Your task to perform on an android device: change notification settings in the gmail app Image 0: 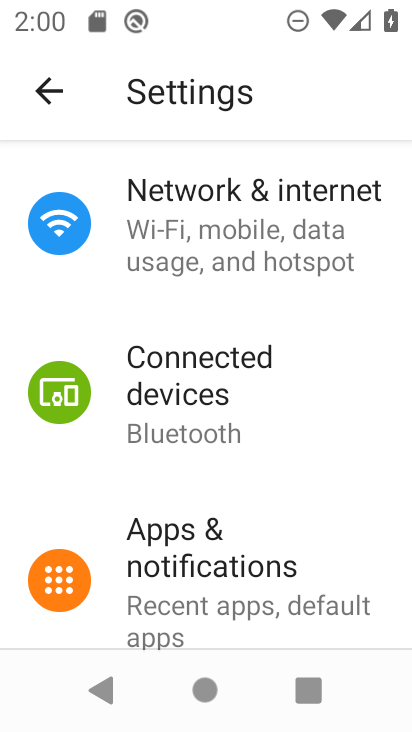
Step 0: press home button
Your task to perform on an android device: change notification settings in the gmail app Image 1: 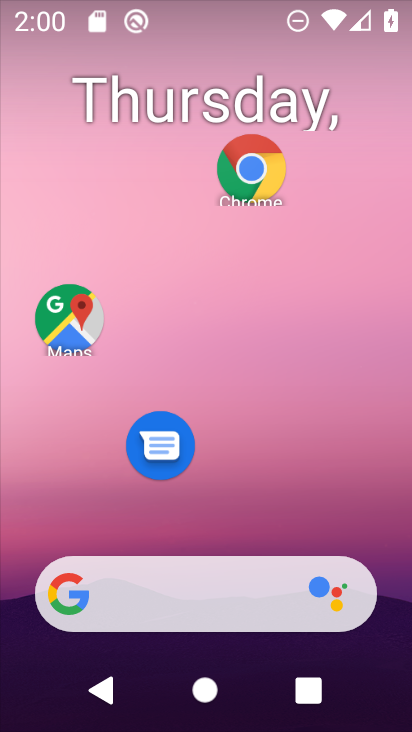
Step 1: drag from (328, 632) to (317, 115)
Your task to perform on an android device: change notification settings in the gmail app Image 2: 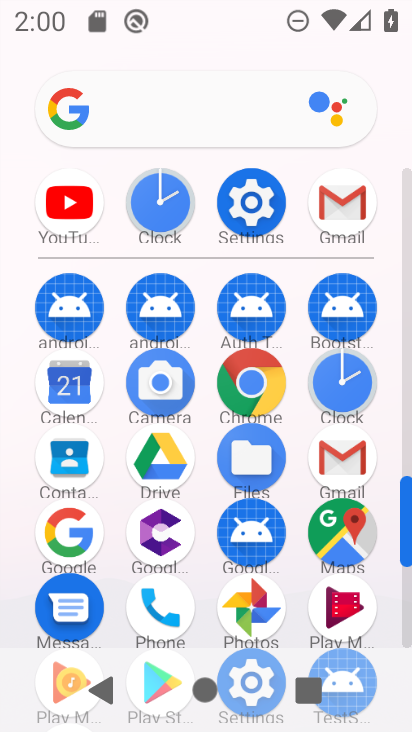
Step 2: click (333, 186)
Your task to perform on an android device: change notification settings in the gmail app Image 3: 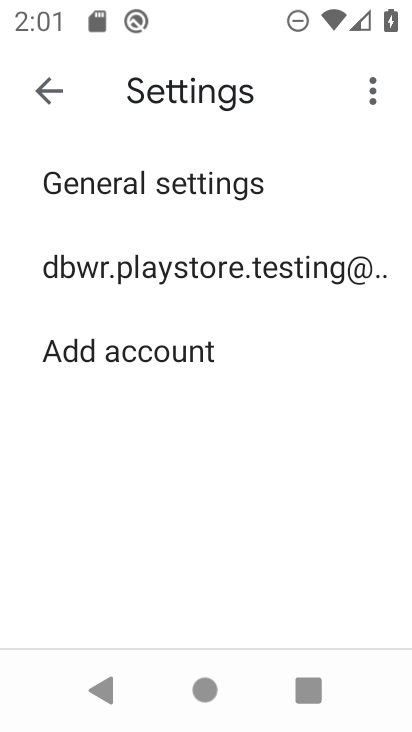
Step 3: click (217, 289)
Your task to perform on an android device: change notification settings in the gmail app Image 4: 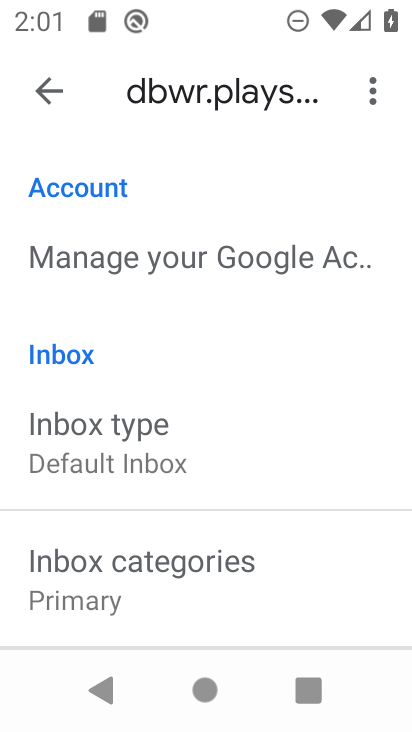
Step 4: drag from (183, 460) to (254, 249)
Your task to perform on an android device: change notification settings in the gmail app Image 5: 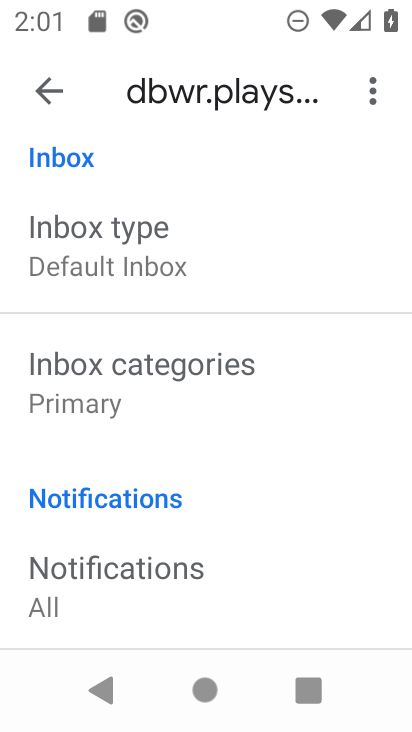
Step 5: click (126, 584)
Your task to perform on an android device: change notification settings in the gmail app Image 6: 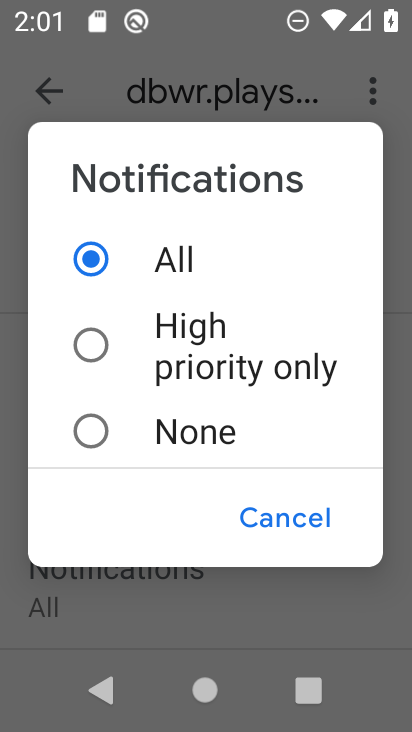
Step 6: click (201, 384)
Your task to perform on an android device: change notification settings in the gmail app Image 7: 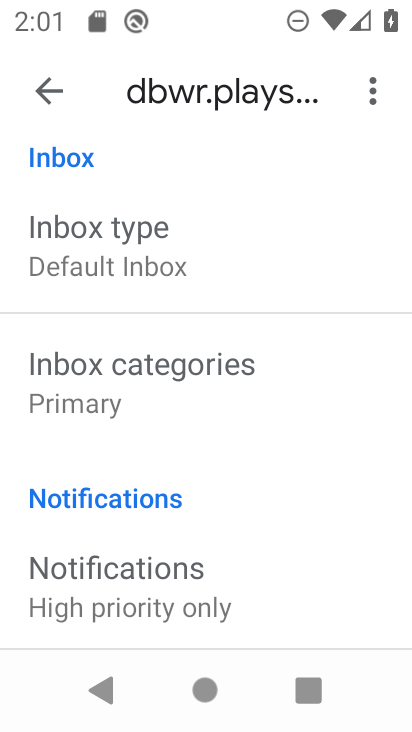
Step 7: click (103, 556)
Your task to perform on an android device: change notification settings in the gmail app Image 8: 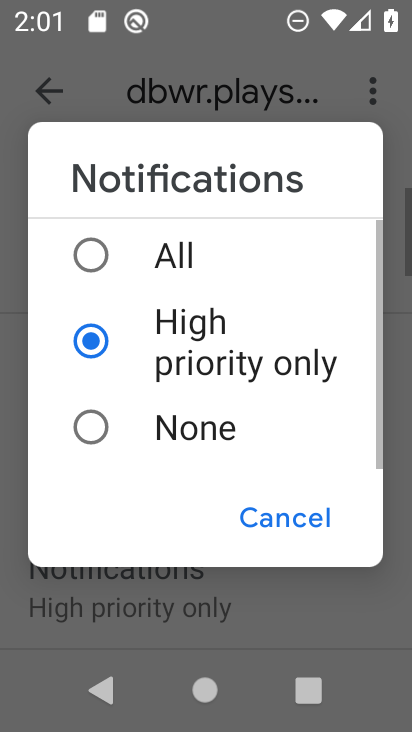
Step 8: task complete